Your task to perform on an android device: Open display settings Image 0: 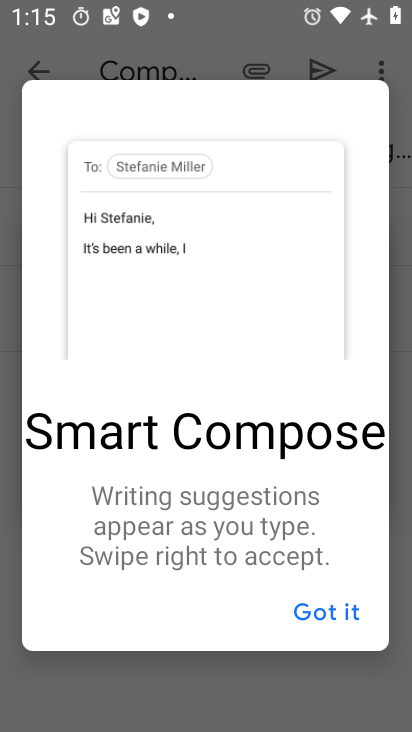
Step 0: press home button
Your task to perform on an android device: Open display settings Image 1: 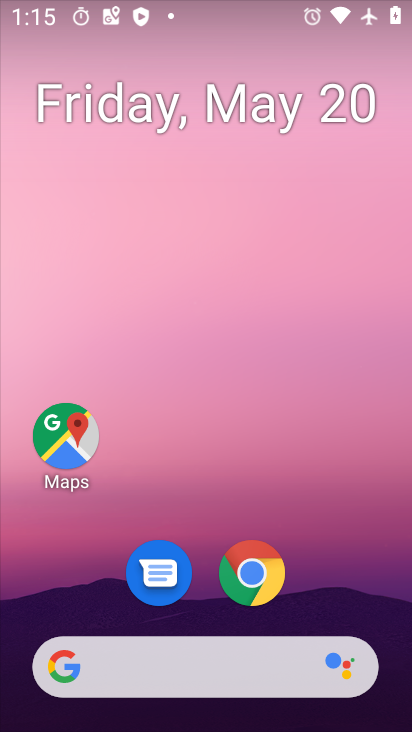
Step 1: drag from (328, 563) to (346, 63)
Your task to perform on an android device: Open display settings Image 2: 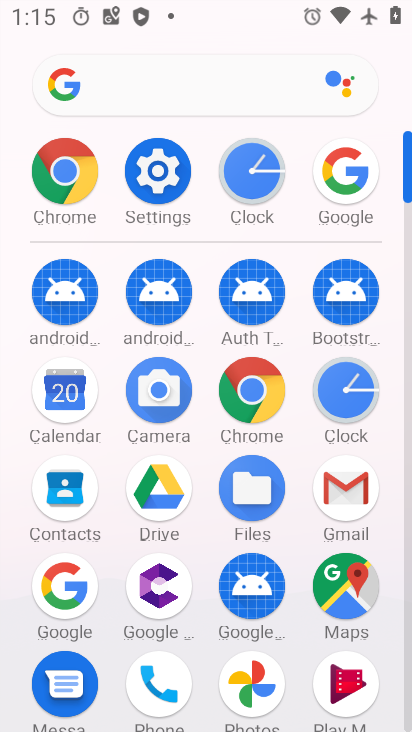
Step 2: click (155, 173)
Your task to perform on an android device: Open display settings Image 3: 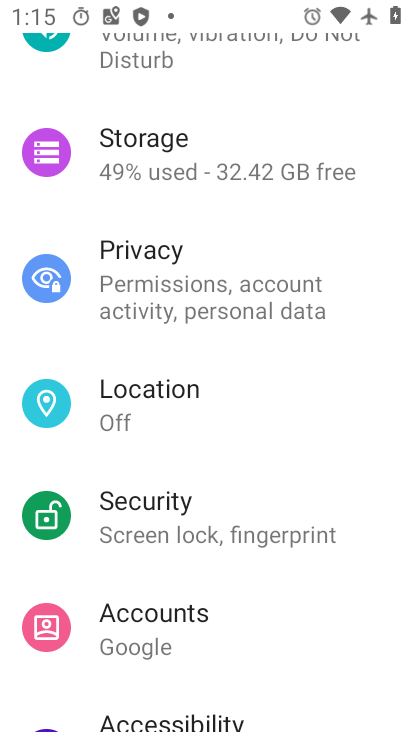
Step 3: drag from (218, 202) to (298, 668)
Your task to perform on an android device: Open display settings Image 4: 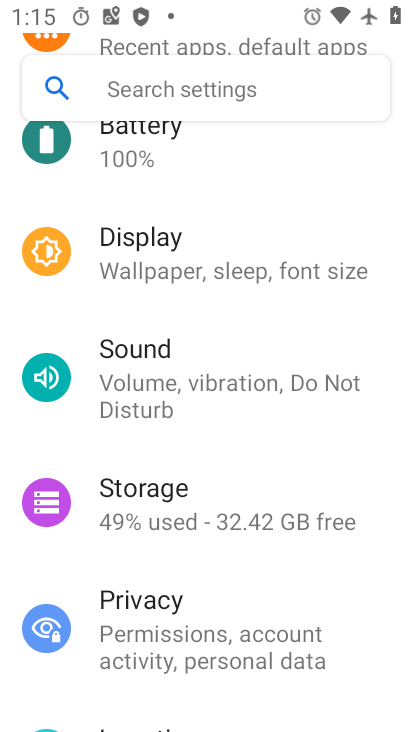
Step 4: click (178, 260)
Your task to perform on an android device: Open display settings Image 5: 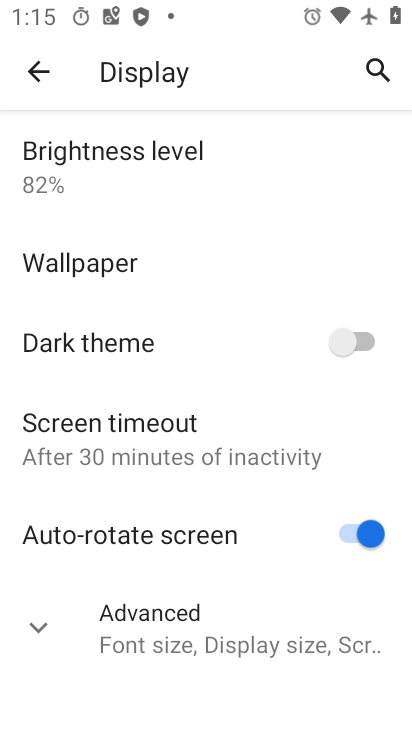
Step 5: task complete